Your task to perform on an android device: toggle data saver in the chrome app Image 0: 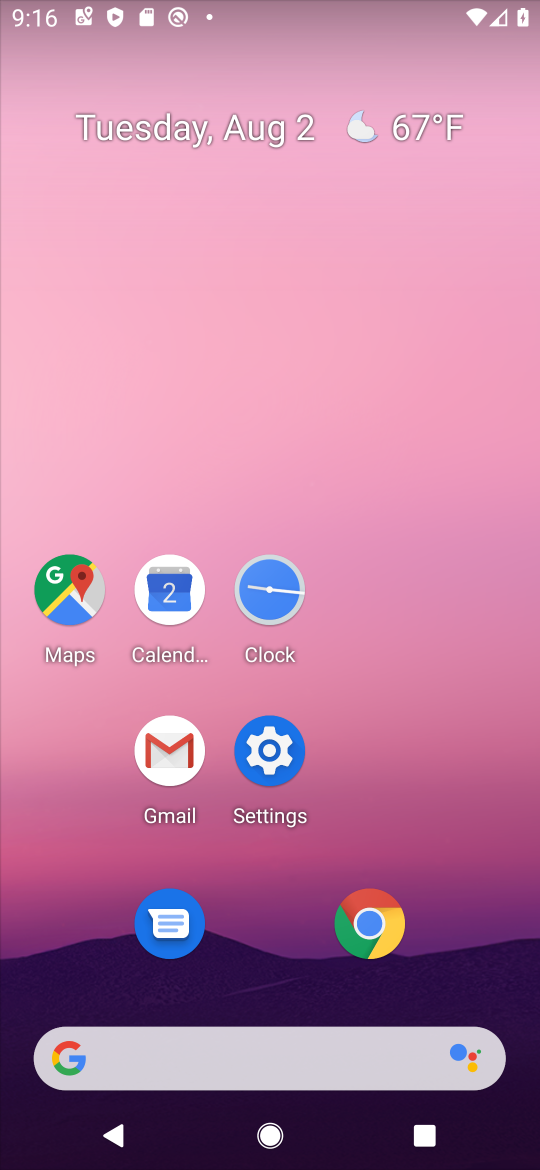
Step 0: click (364, 930)
Your task to perform on an android device: toggle data saver in the chrome app Image 1: 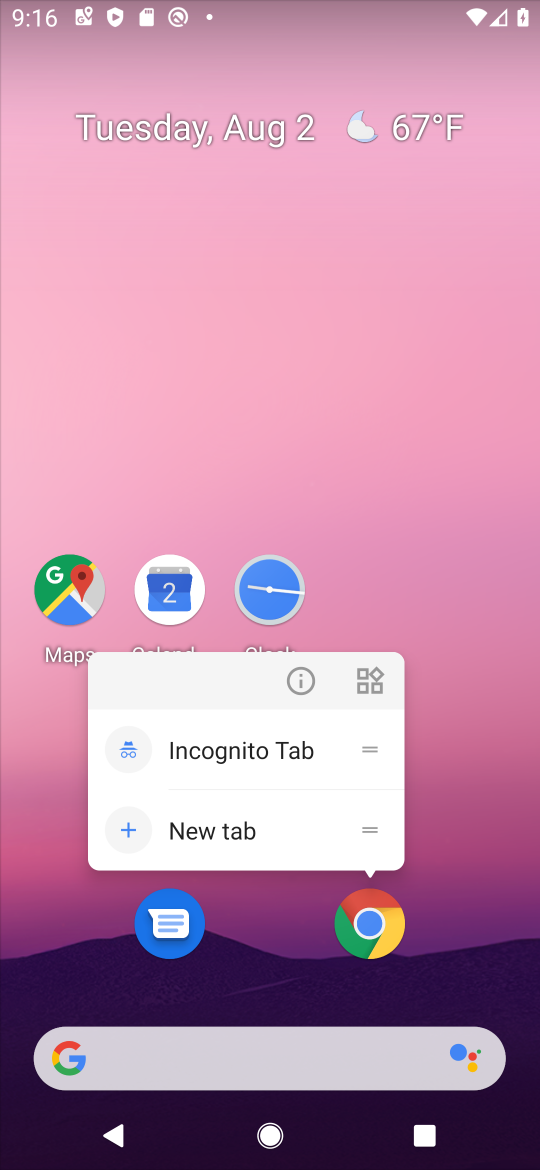
Step 1: click (364, 930)
Your task to perform on an android device: toggle data saver in the chrome app Image 2: 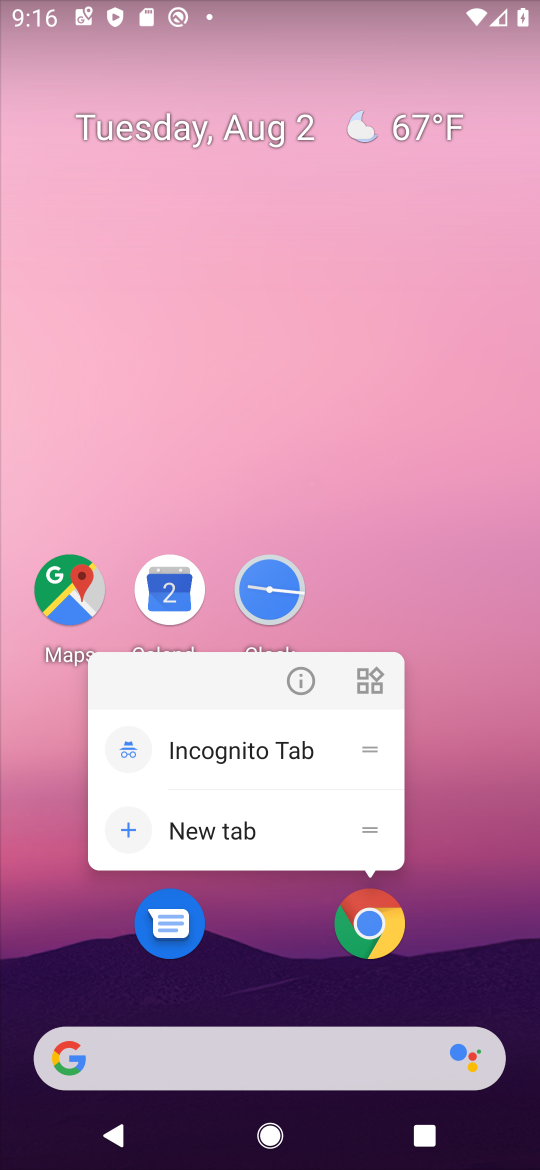
Step 2: click (378, 915)
Your task to perform on an android device: toggle data saver in the chrome app Image 3: 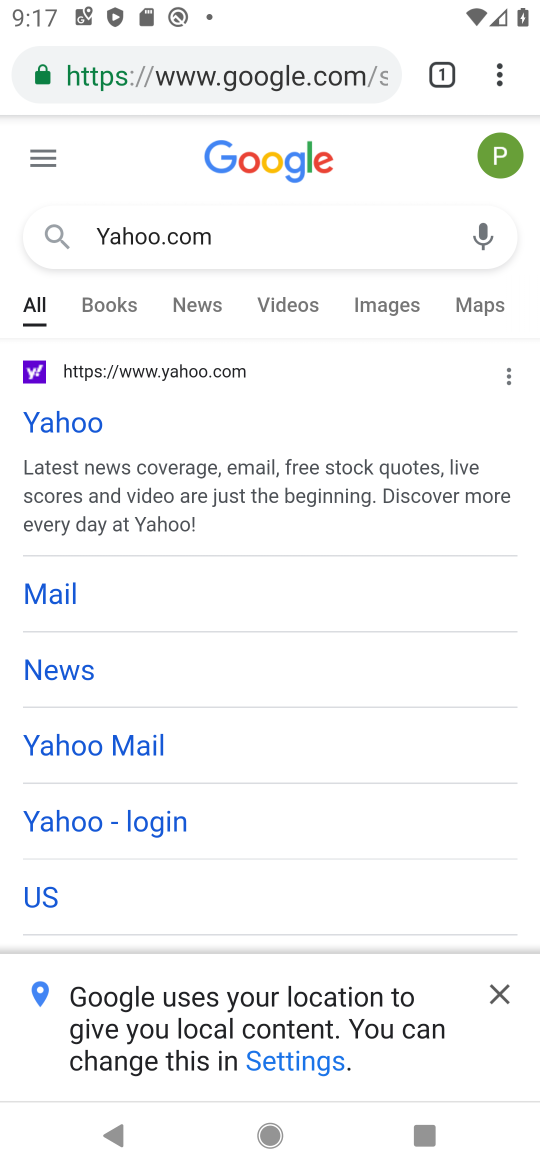
Step 3: click (503, 64)
Your task to perform on an android device: toggle data saver in the chrome app Image 4: 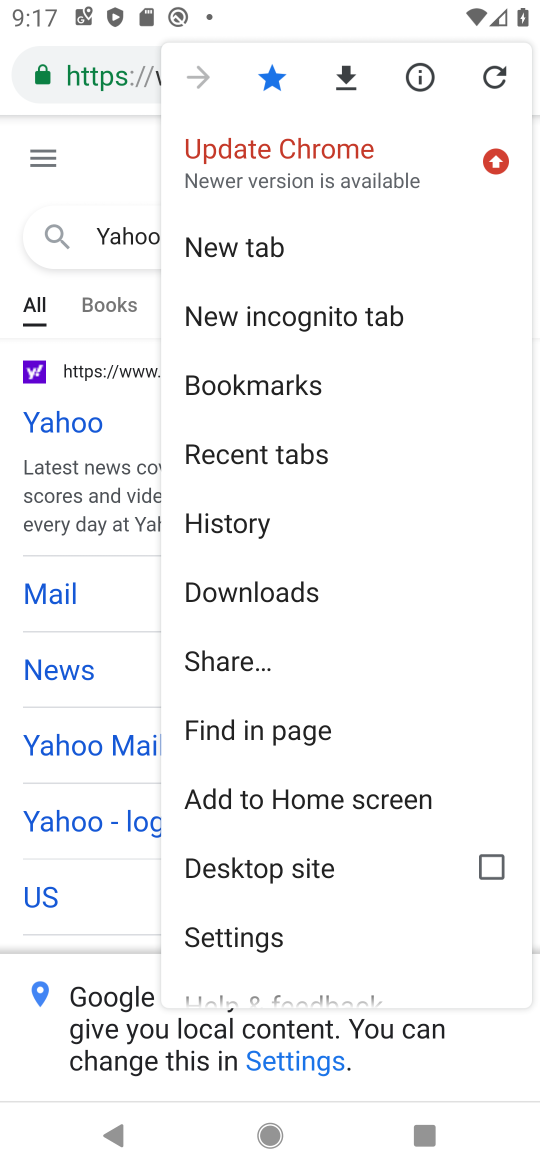
Step 4: click (241, 935)
Your task to perform on an android device: toggle data saver in the chrome app Image 5: 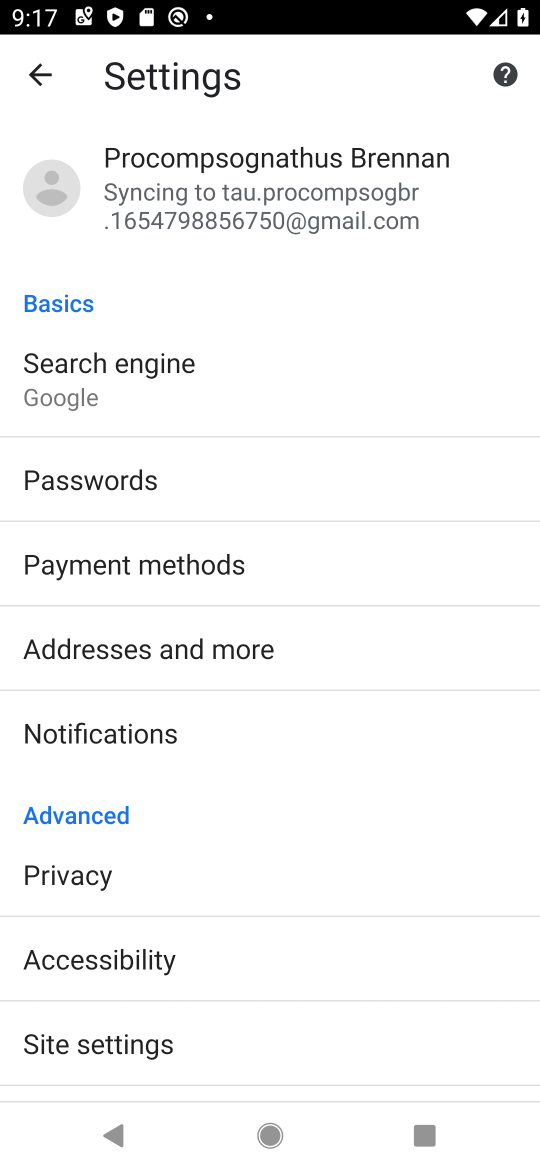
Step 5: drag from (279, 1045) to (283, 666)
Your task to perform on an android device: toggle data saver in the chrome app Image 6: 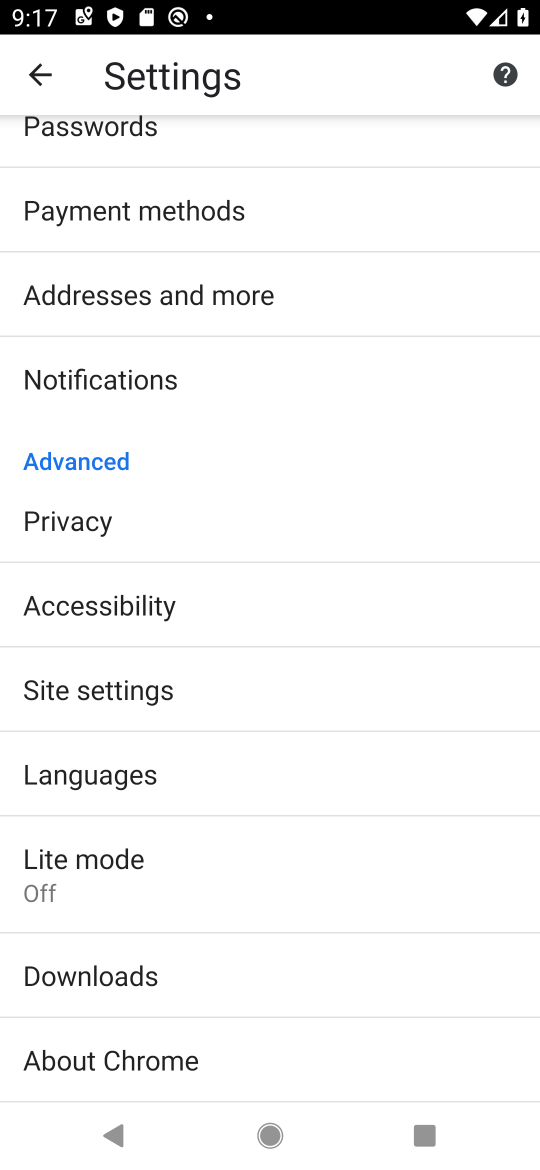
Step 6: drag from (296, 1052) to (327, 625)
Your task to perform on an android device: toggle data saver in the chrome app Image 7: 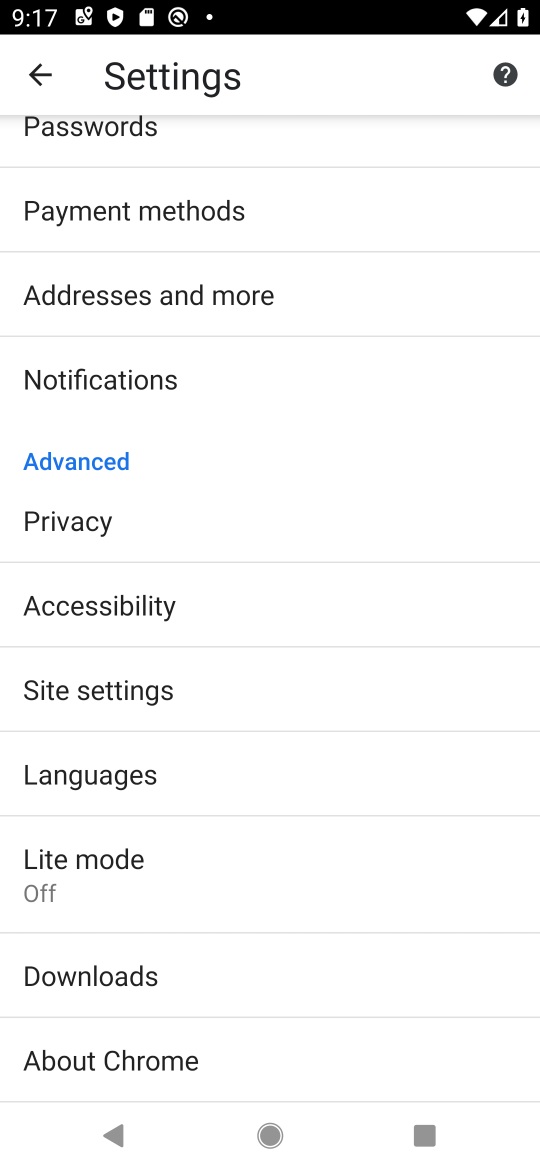
Step 7: click (97, 866)
Your task to perform on an android device: toggle data saver in the chrome app Image 8: 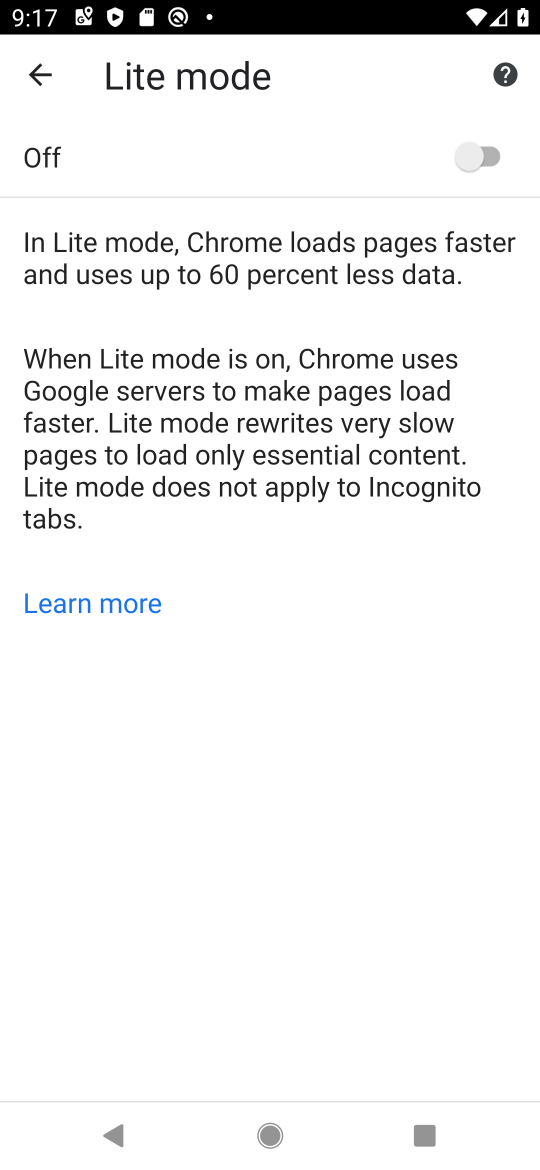
Step 8: click (485, 141)
Your task to perform on an android device: toggle data saver in the chrome app Image 9: 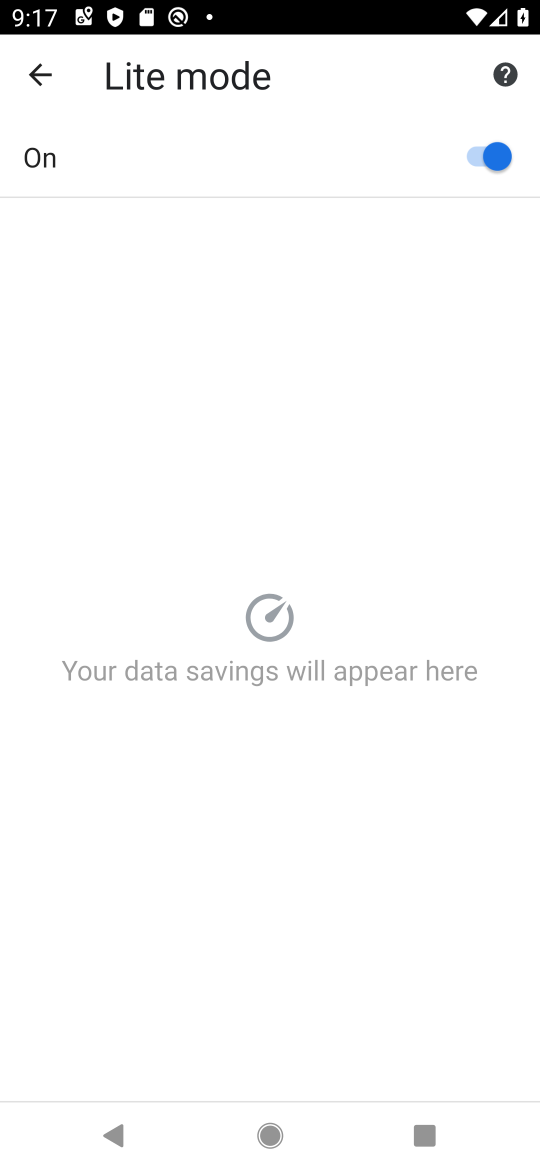
Step 9: task complete